Your task to perform on an android device: Open the phone app and click the voicemail tab. Image 0: 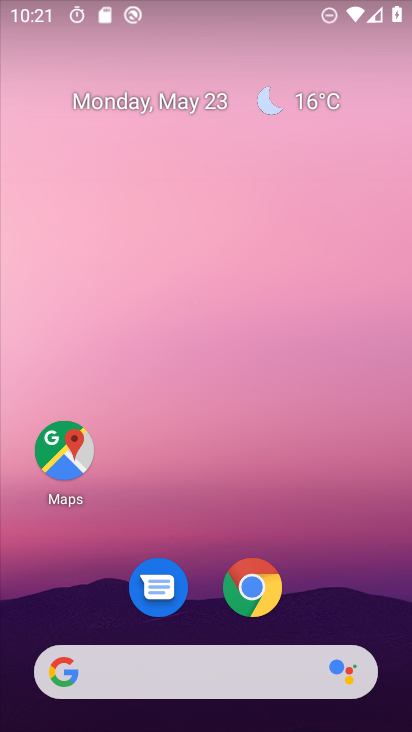
Step 0: drag from (219, 522) to (276, 60)
Your task to perform on an android device: Open the phone app and click the voicemail tab. Image 1: 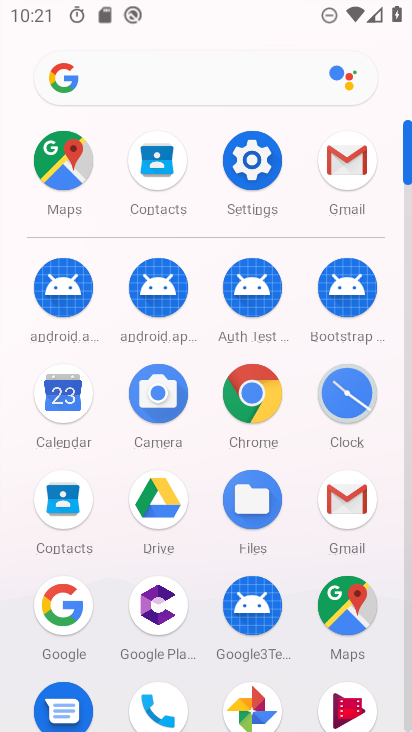
Step 1: click (150, 707)
Your task to perform on an android device: Open the phone app and click the voicemail tab. Image 2: 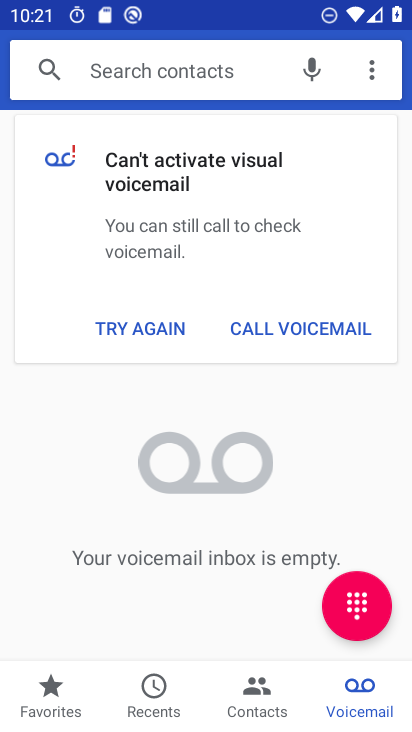
Step 2: click (348, 698)
Your task to perform on an android device: Open the phone app and click the voicemail tab. Image 3: 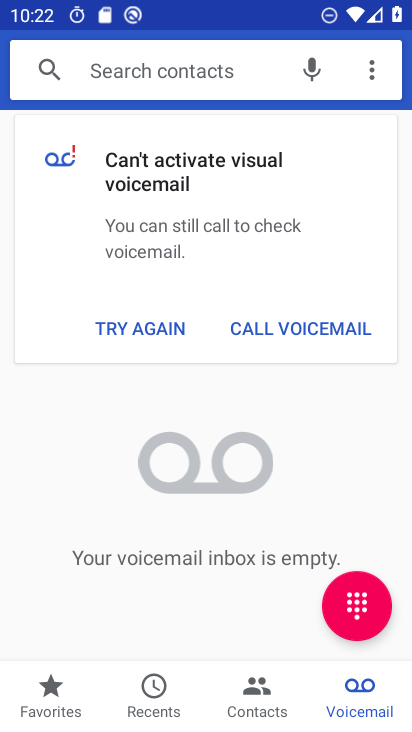
Step 3: task complete